Your task to perform on an android device: delete a single message in the gmail app Image 0: 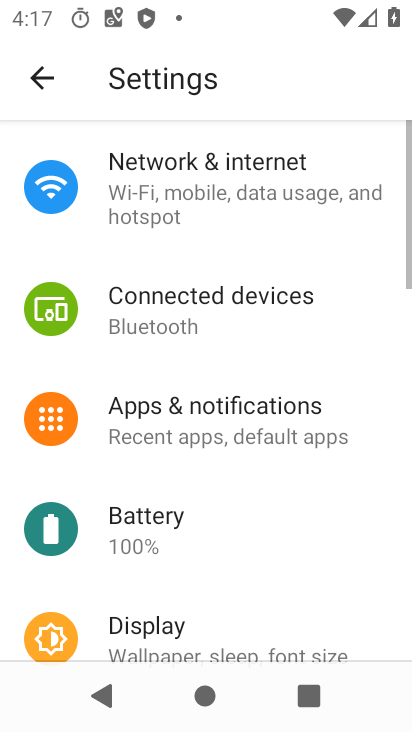
Step 0: press home button
Your task to perform on an android device: delete a single message in the gmail app Image 1: 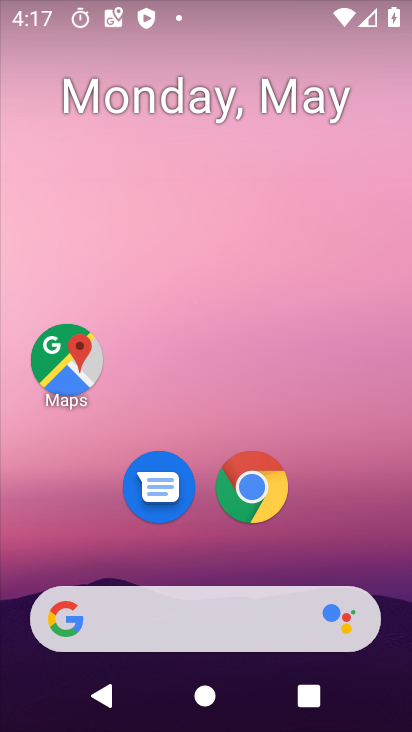
Step 1: drag from (242, 594) to (227, 217)
Your task to perform on an android device: delete a single message in the gmail app Image 2: 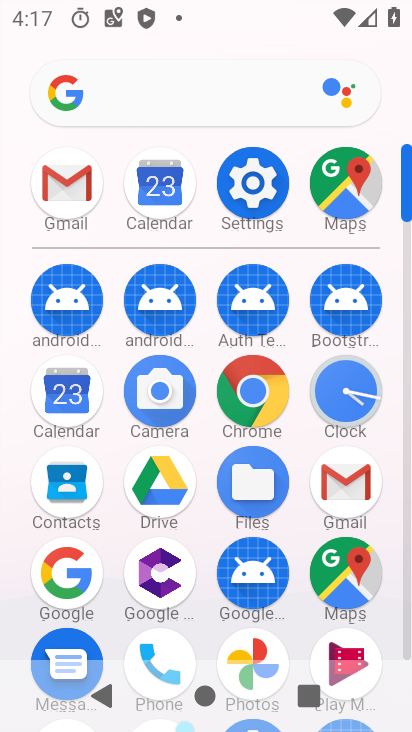
Step 2: click (68, 196)
Your task to perform on an android device: delete a single message in the gmail app Image 3: 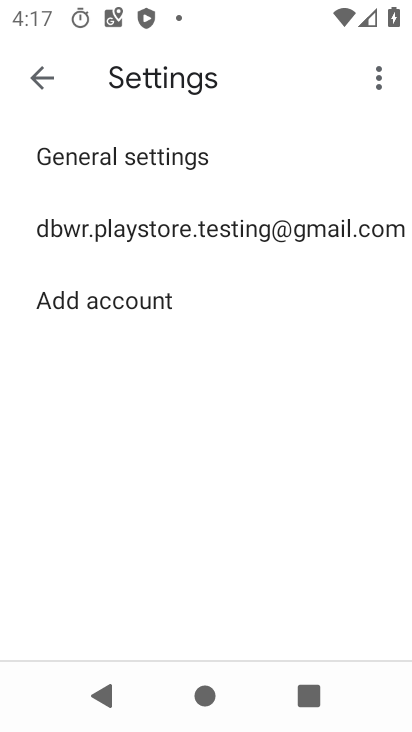
Step 3: click (28, 75)
Your task to perform on an android device: delete a single message in the gmail app Image 4: 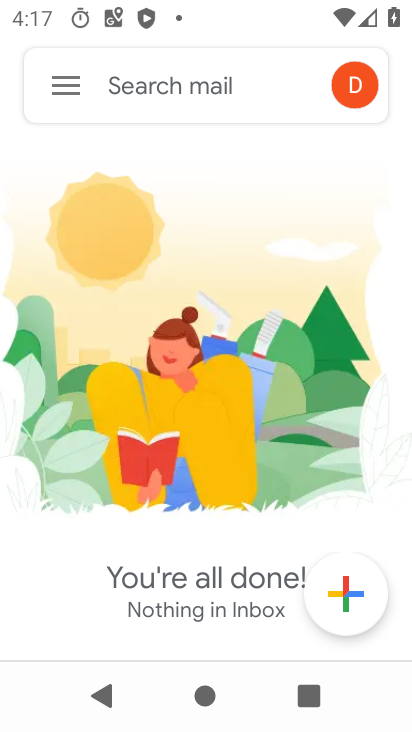
Step 4: task complete